Your task to perform on an android device: change the clock display to analog Image 0: 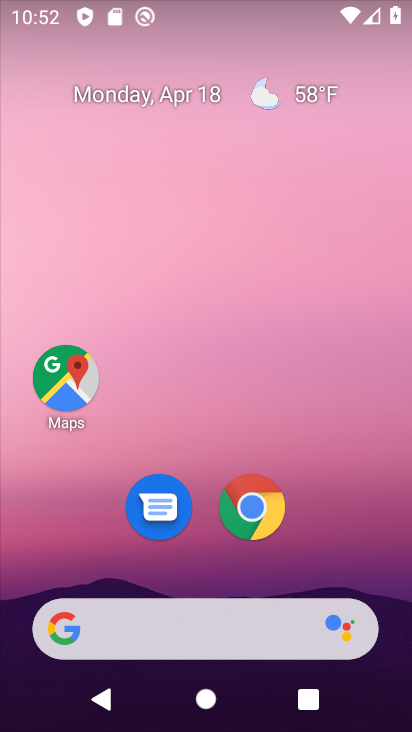
Step 0: drag from (207, 431) to (200, 17)
Your task to perform on an android device: change the clock display to analog Image 1: 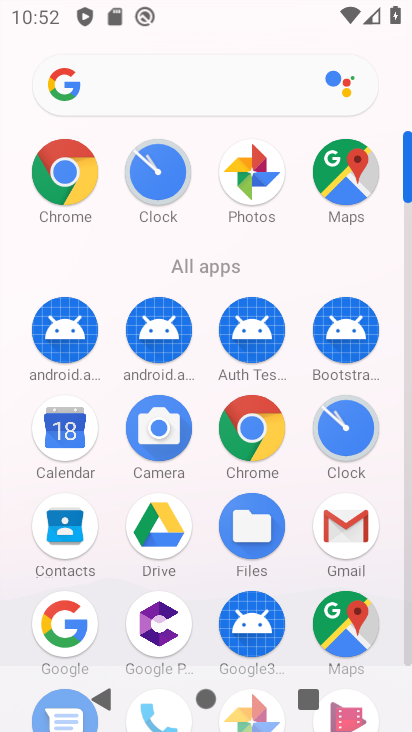
Step 1: click (354, 435)
Your task to perform on an android device: change the clock display to analog Image 2: 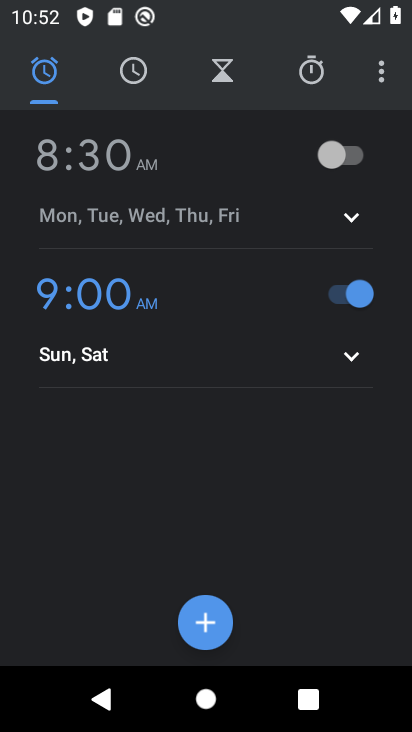
Step 2: click (375, 80)
Your task to perform on an android device: change the clock display to analog Image 3: 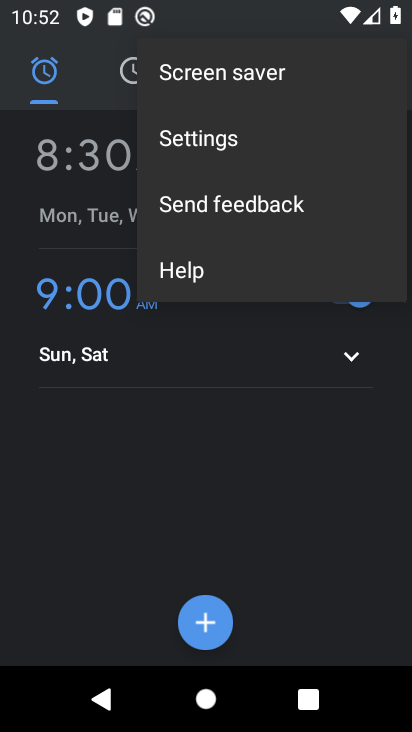
Step 3: click (238, 150)
Your task to perform on an android device: change the clock display to analog Image 4: 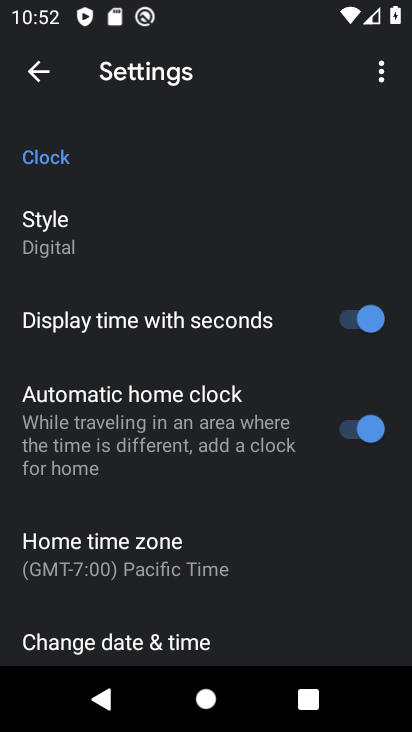
Step 4: click (125, 246)
Your task to perform on an android device: change the clock display to analog Image 5: 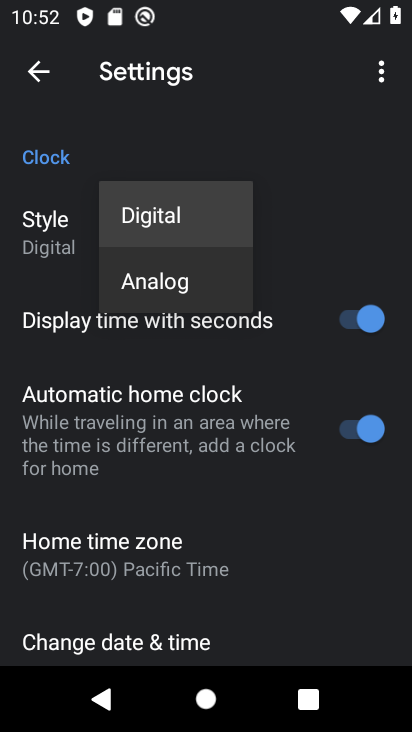
Step 5: click (146, 269)
Your task to perform on an android device: change the clock display to analog Image 6: 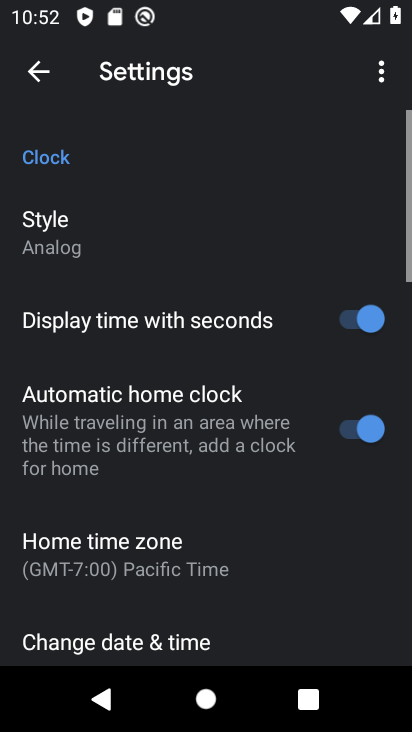
Step 6: task complete